Your task to perform on an android device: set default search engine in the chrome app Image 0: 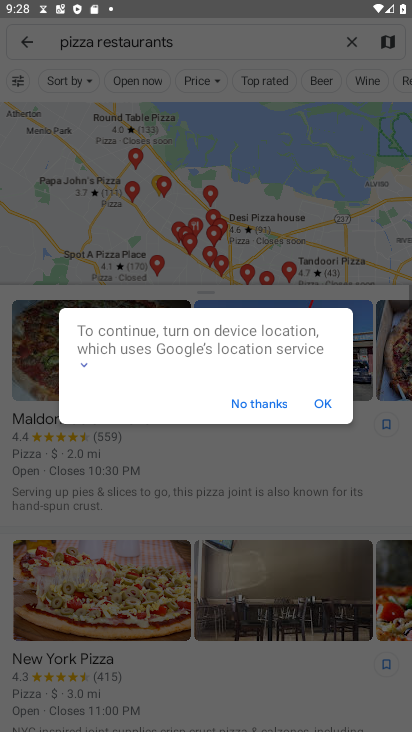
Step 0: press home button
Your task to perform on an android device: set default search engine in the chrome app Image 1: 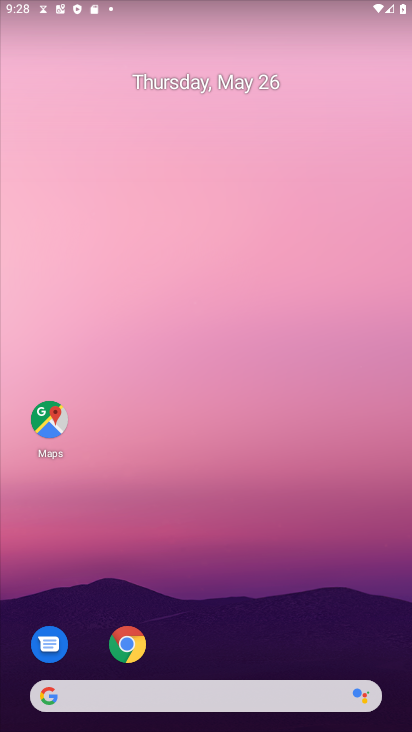
Step 1: click (128, 641)
Your task to perform on an android device: set default search engine in the chrome app Image 2: 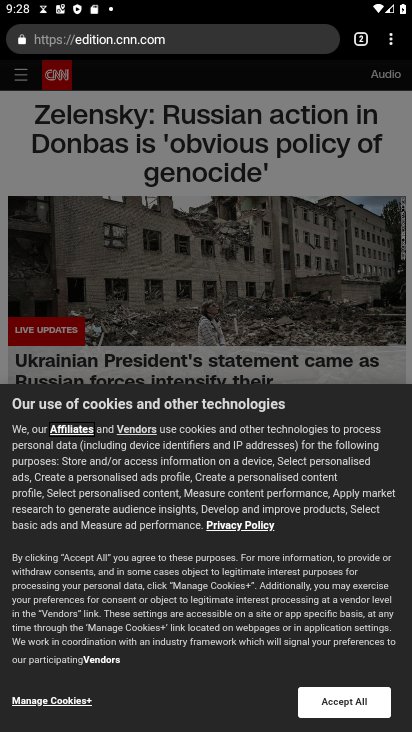
Step 2: drag from (388, 40) to (260, 483)
Your task to perform on an android device: set default search engine in the chrome app Image 3: 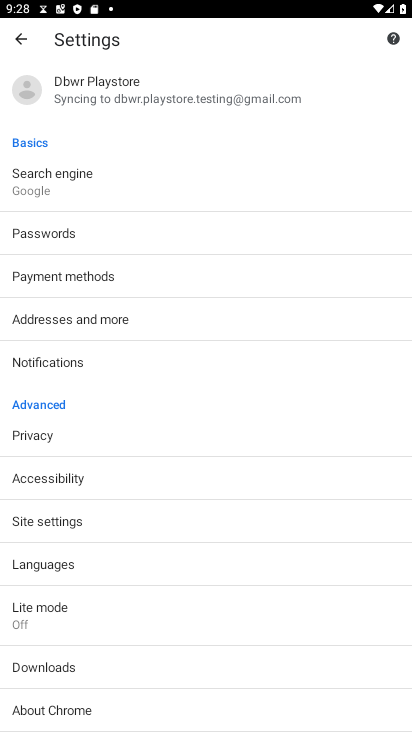
Step 3: click (68, 180)
Your task to perform on an android device: set default search engine in the chrome app Image 4: 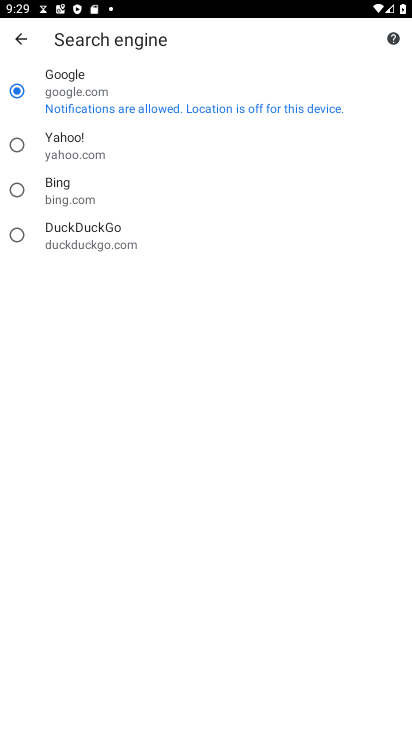
Step 4: click (76, 137)
Your task to perform on an android device: set default search engine in the chrome app Image 5: 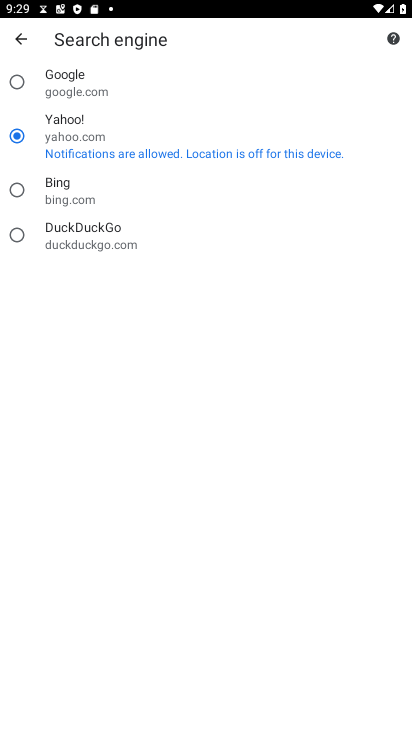
Step 5: task complete